Your task to perform on an android device: delete a single message in the gmail app Image 0: 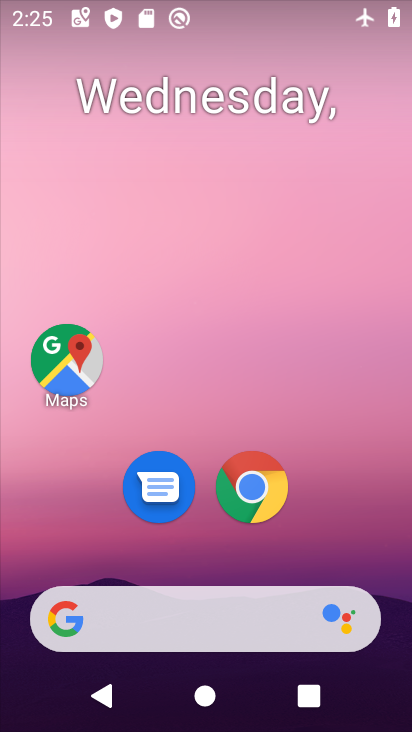
Step 0: drag from (353, 538) to (283, 8)
Your task to perform on an android device: delete a single message in the gmail app Image 1: 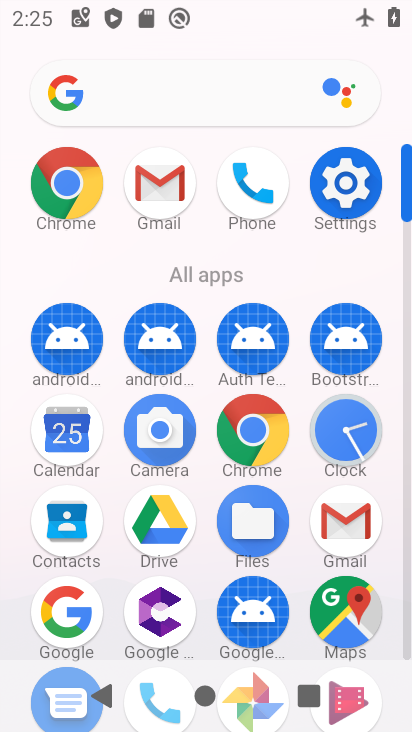
Step 1: click (166, 164)
Your task to perform on an android device: delete a single message in the gmail app Image 2: 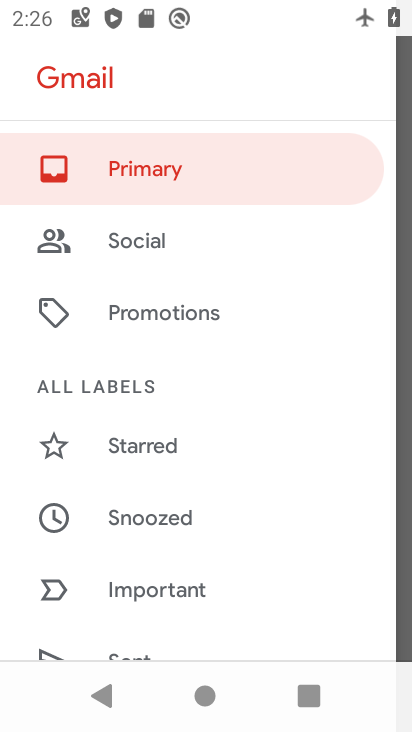
Step 2: task complete